Your task to perform on an android device: toggle show notifications on the lock screen Image 0: 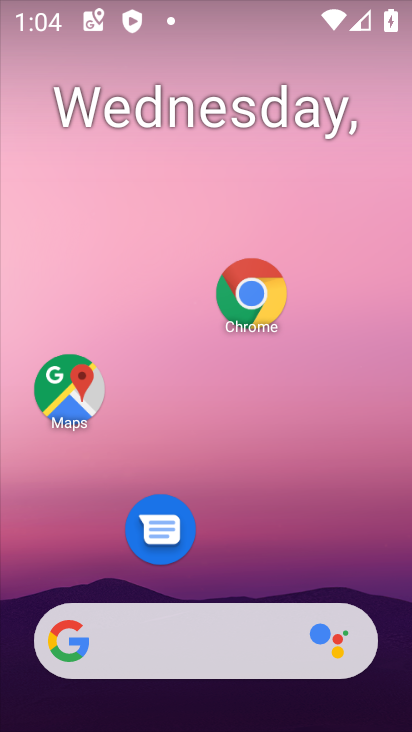
Step 0: drag from (300, 596) to (355, 99)
Your task to perform on an android device: toggle show notifications on the lock screen Image 1: 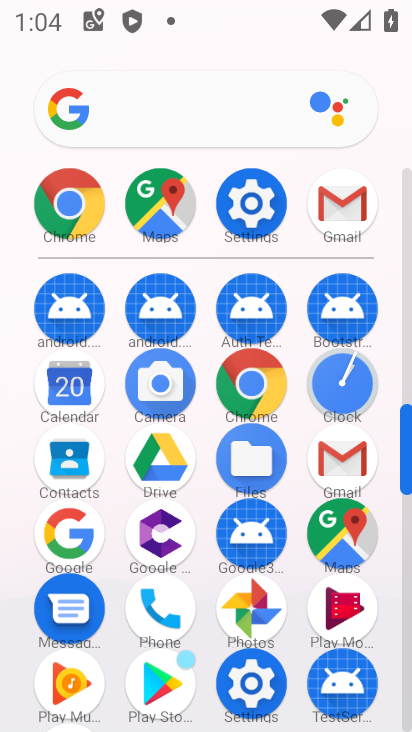
Step 1: click (256, 203)
Your task to perform on an android device: toggle show notifications on the lock screen Image 2: 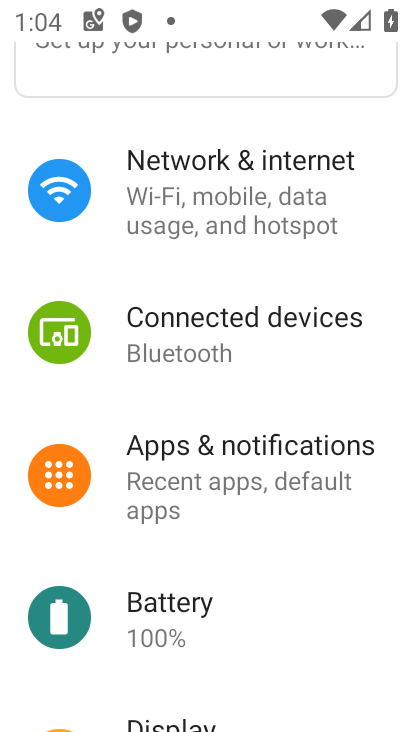
Step 2: drag from (242, 221) to (300, 502)
Your task to perform on an android device: toggle show notifications on the lock screen Image 3: 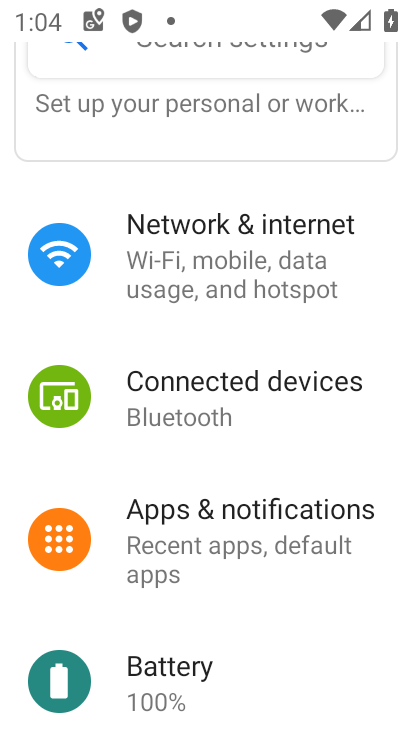
Step 3: drag from (293, 397) to (308, 254)
Your task to perform on an android device: toggle show notifications on the lock screen Image 4: 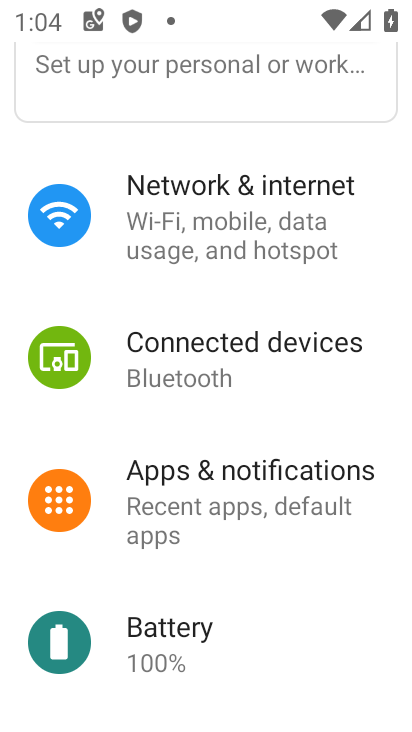
Step 4: click (270, 482)
Your task to perform on an android device: toggle show notifications on the lock screen Image 5: 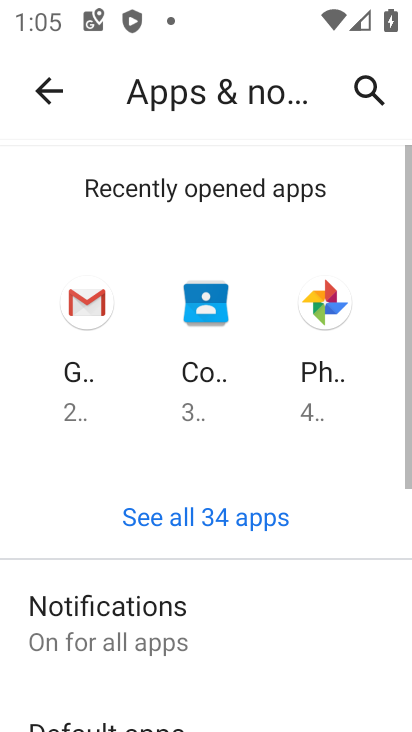
Step 5: click (288, 637)
Your task to perform on an android device: toggle show notifications on the lock screen Image 6: 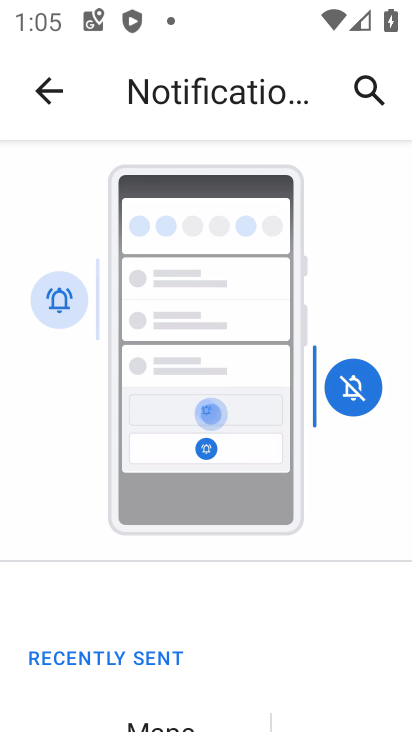
Step 6: click (340, 303)
Your task to perform on an android device: toggle show notifications on the lock screen Image 7: 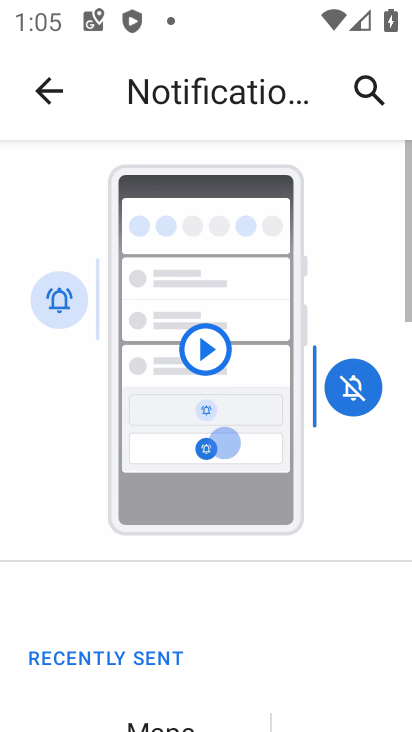
Step 7: click (290, 446)
Your task to perform on an android device: toggle show notifications on the lock screen Image 8: 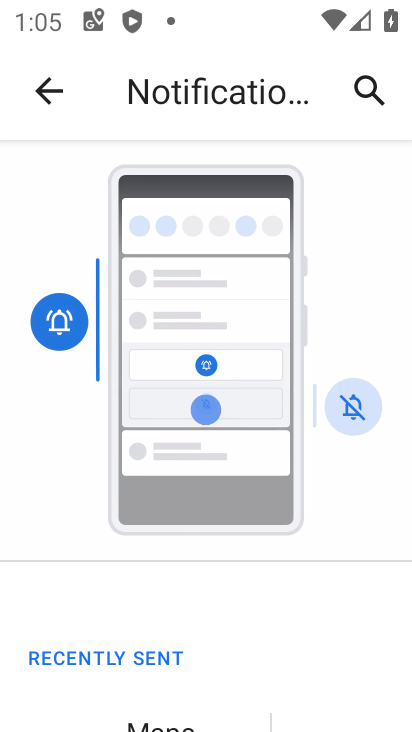
Step 8: click (231, 467)
Your task to perform on an android device: toggle show notifications on the lock screen Image 9: 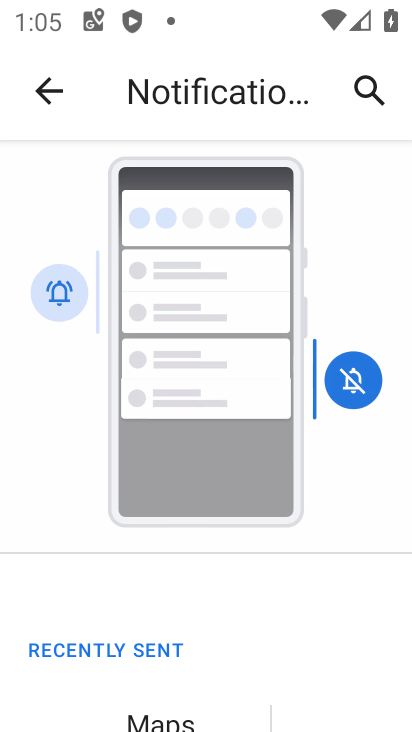
Step 9: drag from (237, 600) to (242, 291)
Your task to perform on an android device: toggle show notifications on the lock screen Image 10: 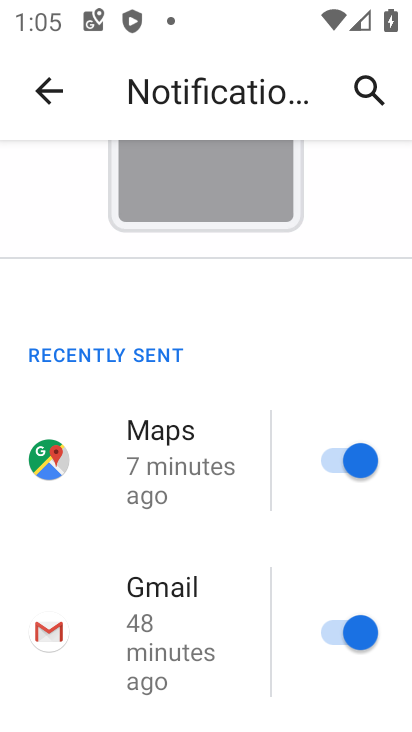
Step 10: drag from (254, 457) to (261, 387)
Your task to perform on an android device: toggle show notifications on the lock screen Image 11: 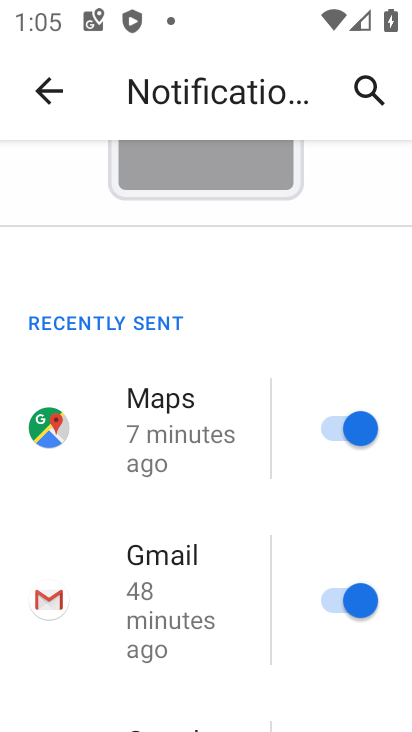
Step 11: drag from (243, 636) to (247, 370)
Your task to perform on an android device: toggle show notifications on the lock screen Image 12: 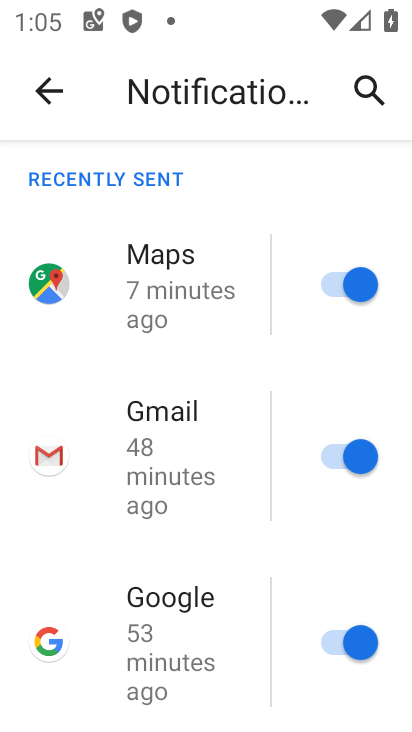
Step 12: drag from (254, 568) to (294, 372)
Your task to perform on an android device: toggle show notifications on the lock screen Image 13: 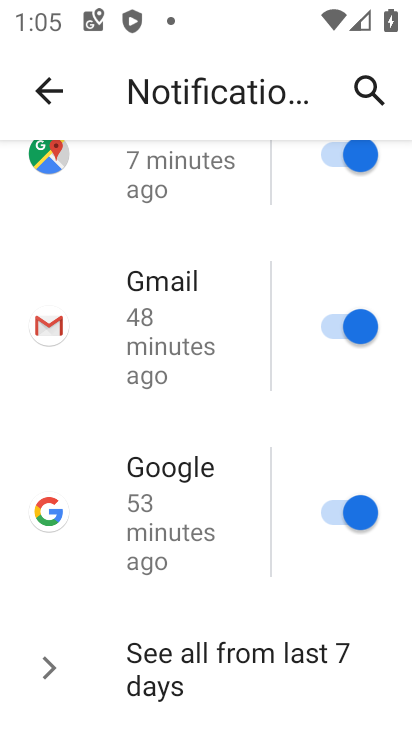
Step 13: drag from (256, 543) to (283, 209)
Your task to perform on an android device: toggle show notifications on the lock screen Image 14: 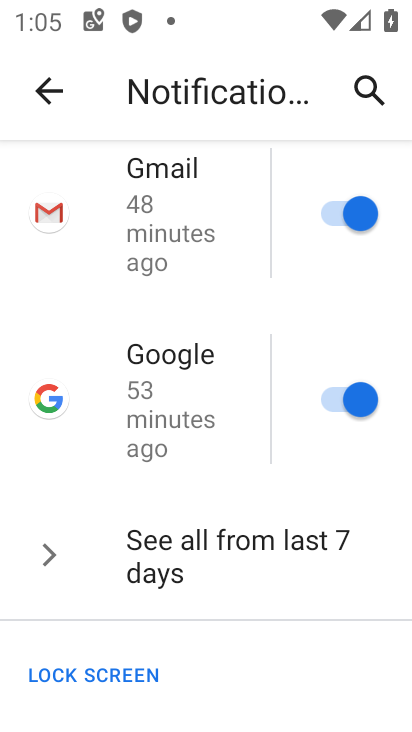
Step 14: drag from (210, 514) to (225, 330)
Your task to perform on an android device: toggle show notifications on the lock screen Image 15: 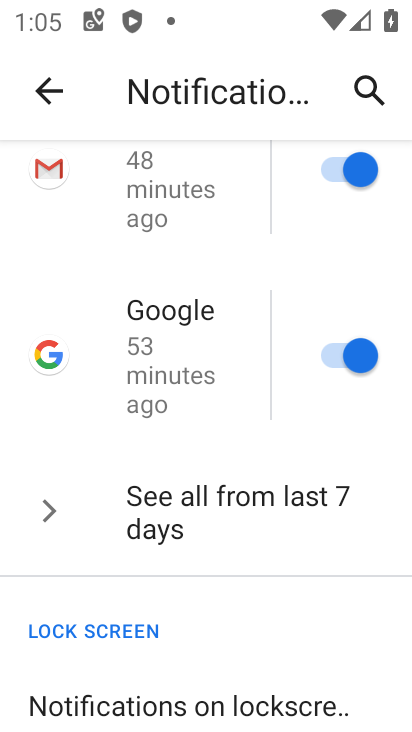
Step 15: drag from (185, 556) to (234, 303)
Your task to perform on an android device: toggle show notifications on the lock screen Image 16: 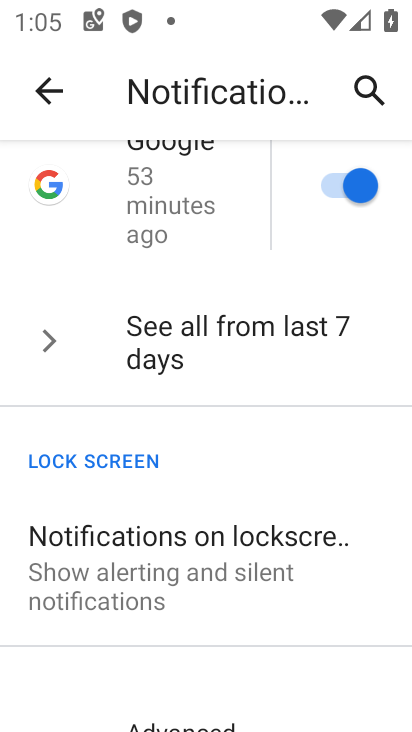
Step 16: click (193, 596)
Your task to perform on an android device: toggle show notifications on the lock screen Image 17: 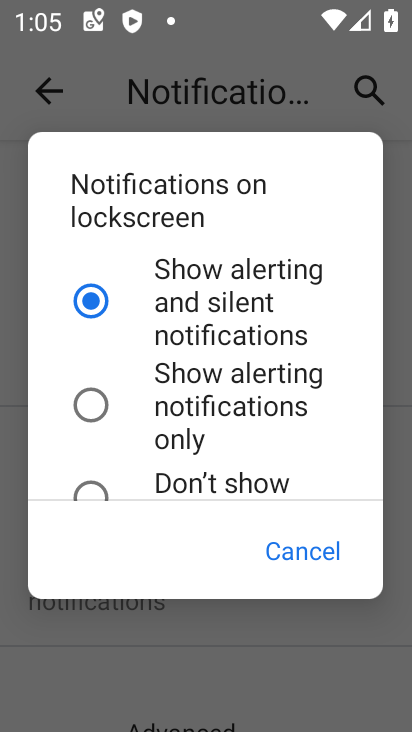
Step 17: click (78, 485)
Your task to perform on an android device: toggle show notifications on the lock screen Image 18: 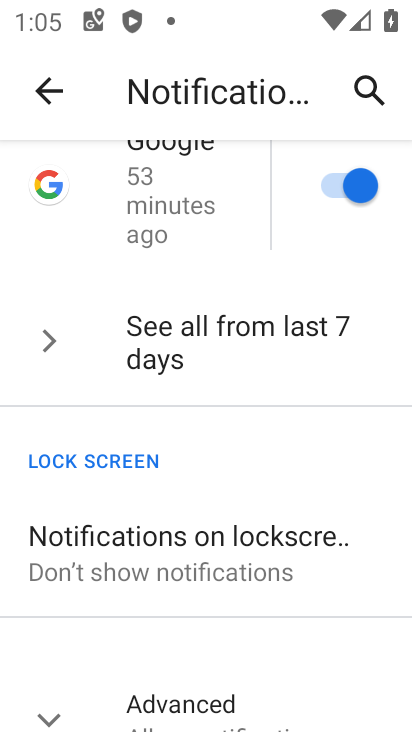
Step 18: task complete